Your task to perform on an android device: open the mobile data screen to see how much data has been used Image 0: 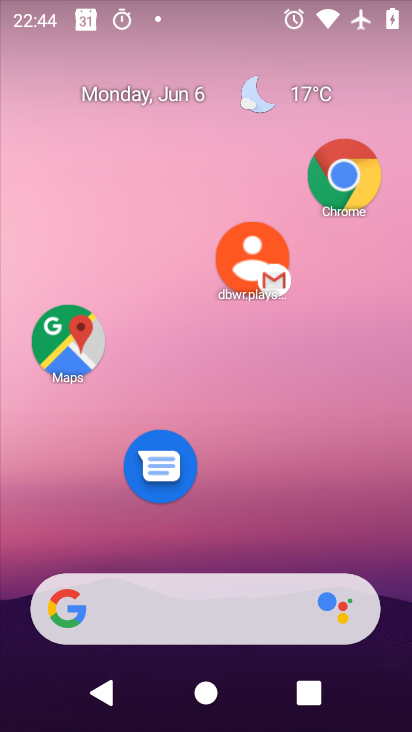
Step 0: drag from (226, 532) to (170, 5)
Your task to perform on an android device: open the mobile data screen to see how much data has been used Image 1: 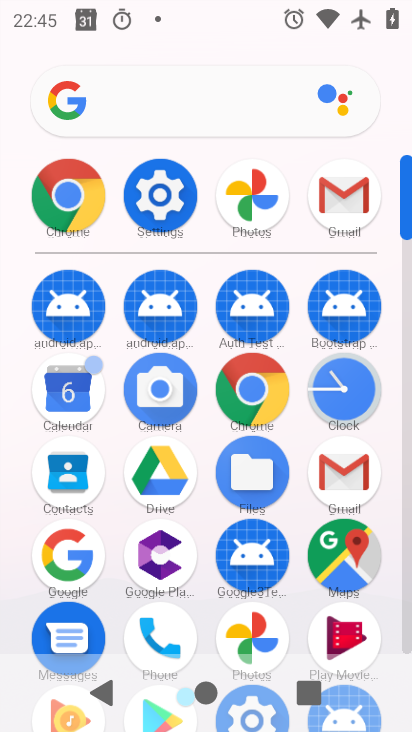
Step 1: click (169, 192)
Your task to perform on an android device: open the mobile data screen to see how much data has been used Image 2: 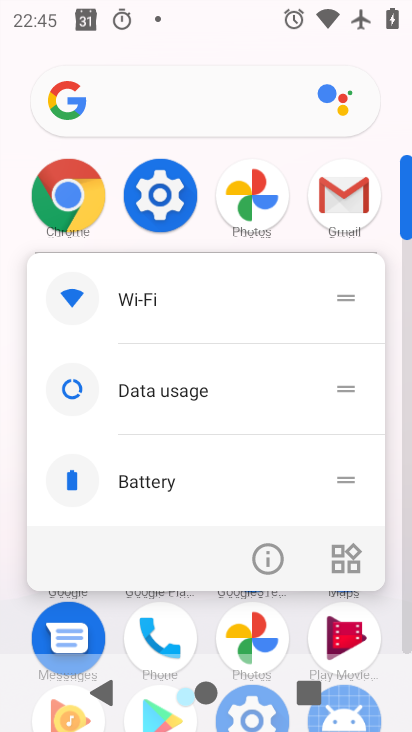
Step 2: click (185, 395)
Your task to perform on an android device: open the mobile data screen to see how much data has been used Image 3: 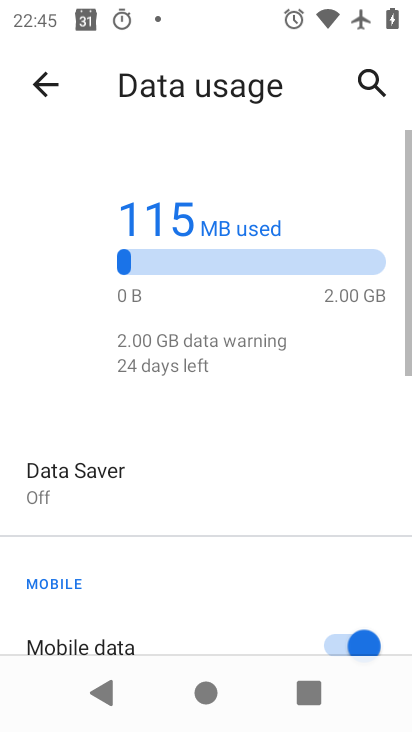
Step 3: task complete